Your task to perform on an android device: Open Wikipedia Image 0: 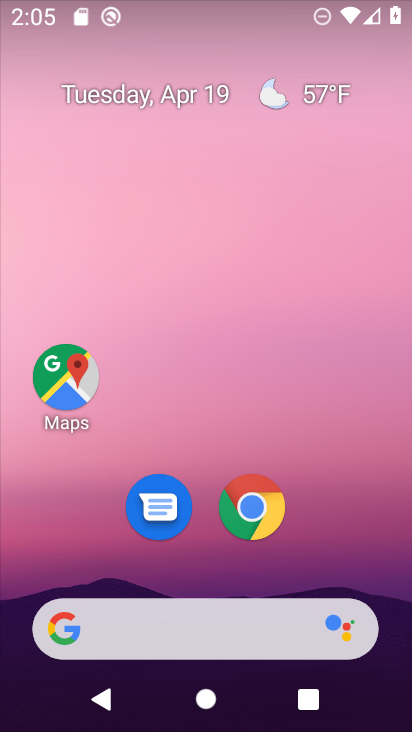
Step 0: drag from (359, 530) to (359, 339)
Your task to perform on an android device: Open Wikipedia Image 1: 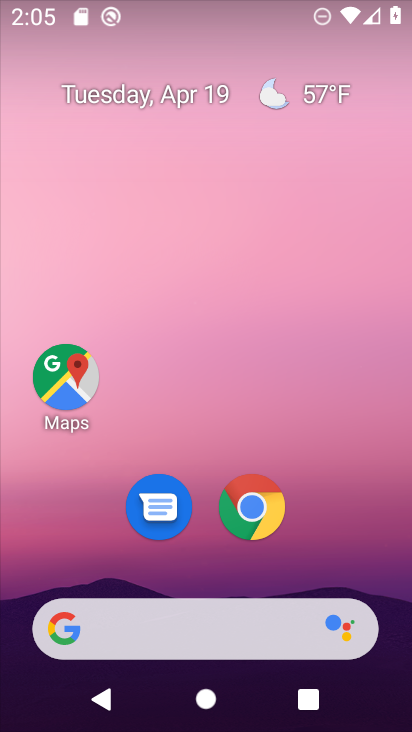
Step 1: click (246, 497)
Your task to perform on an android device: Open Wikipedia Image 2: 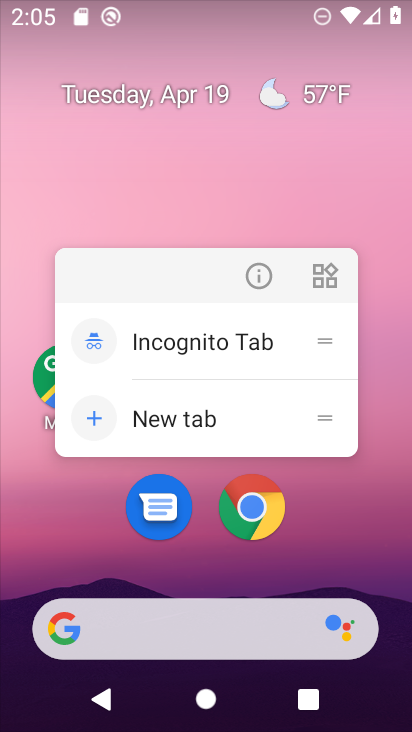
Step 2: click (246, 510)
Your task to perform on an android device: Open Wikipedia Image 3: 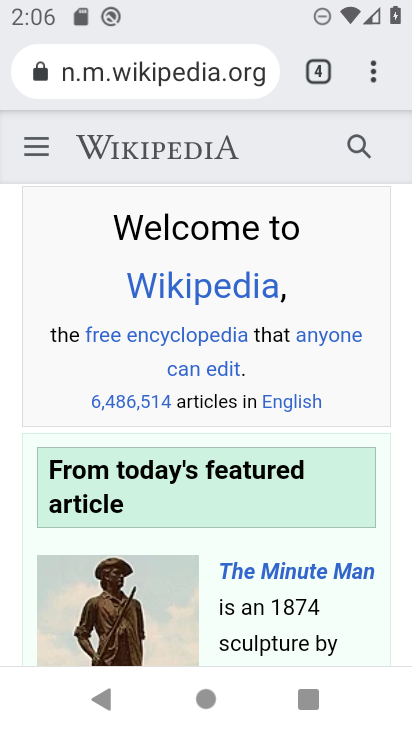
Step 3: task complete